Your task to perform on an android device: Open calendar and show me the fourth week of next month Image 0: 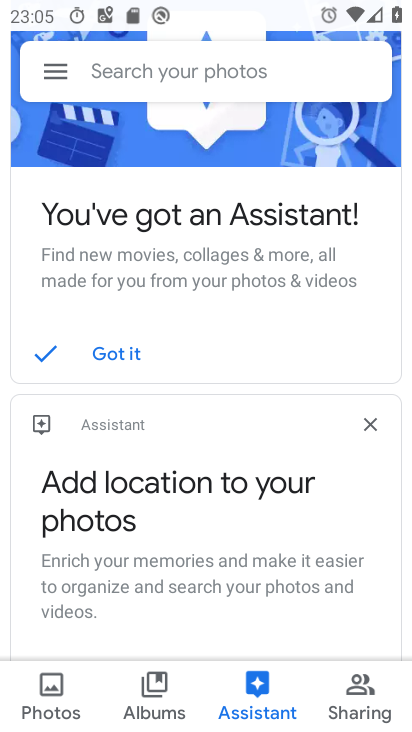
Step 0: press home button
Your task to perform on an android device: Open calendar and show me the fourth week of next month Image 1: 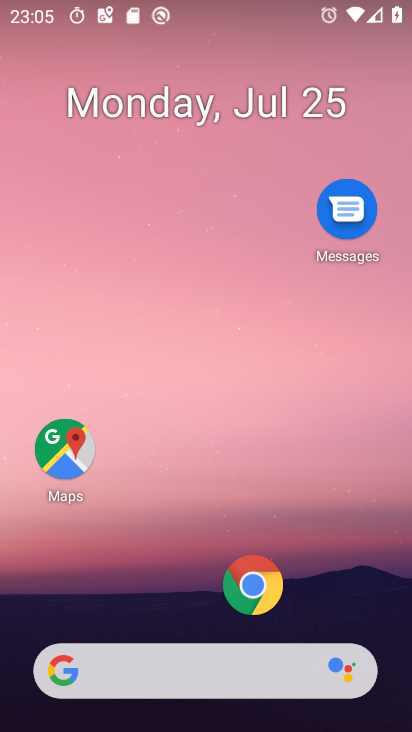
Step 1: drag from (134, 679) to (267, 85)
Your task to perform on an android device: Open calendar and show me the fourth week of next month Image 2: 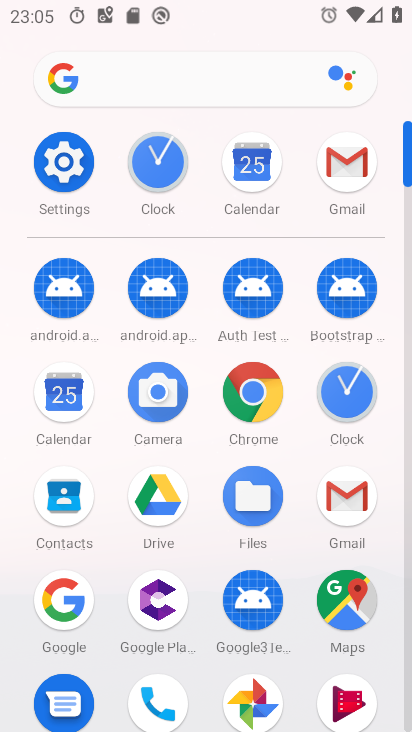
Step 2: click (59, 404)
Your task to perform on an android device: Open calendar and show me the fourth week of next month Image 3: 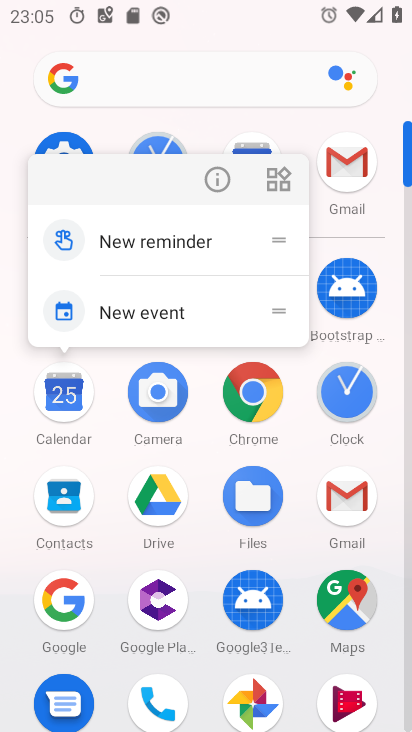
Step 3: click (59, 404)
Your task to perform on an android device: Open calendar and show me the fourth week of next month Image 4: 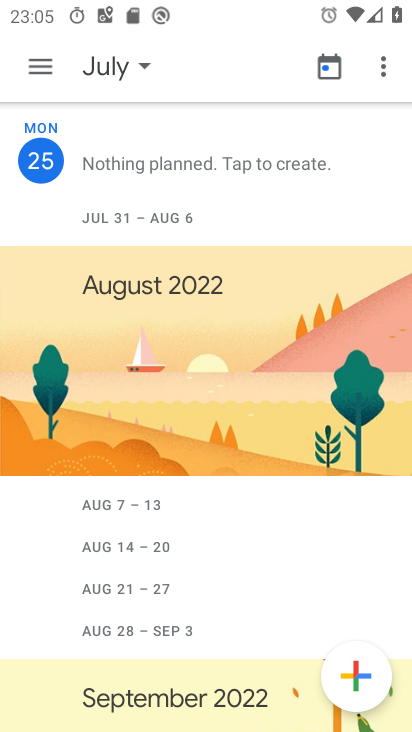
Step 4: click (97, 74)
Your task to perform on an android device: Open calendar and show me the fourth week of next month Image 5: 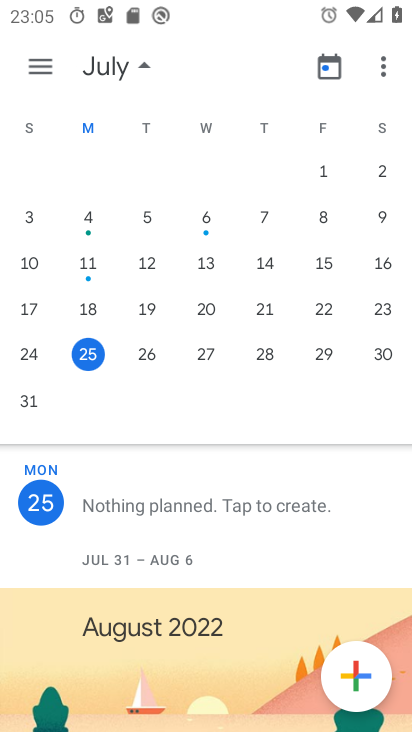
Step 5: drag from (368, 312) to (6, 329)
Your task to perform on an android device: Open calendar and show me the fourth week of next month Image 6: 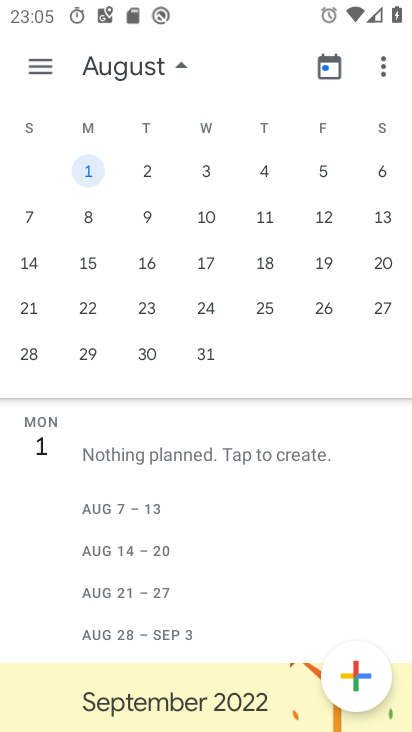
Step 6: drag from (355, 274) to (50, 535)
Your task to perform on an android device: Open calendar and show me the fourth week of next month Image 7: 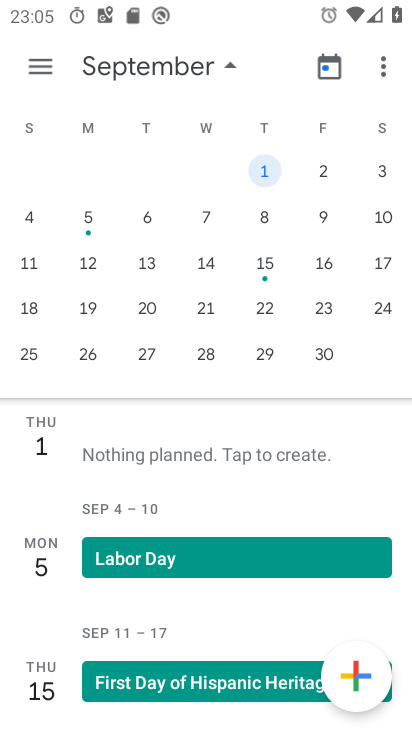
Step 7: drag from (55, 279) to (406, 317)
Your task to perform on an android device: Open calendar and show me the fourth week of next month Image 8: 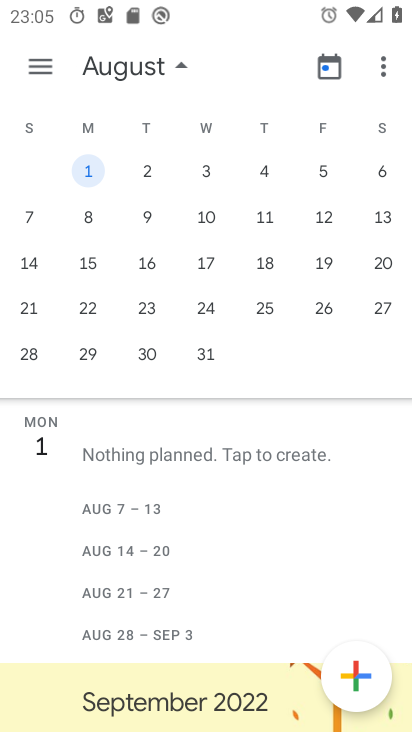
Step 8: click (28, 302)
Your task to perform on an android device: Open calendar and show me the fourth week of next month Image 9: 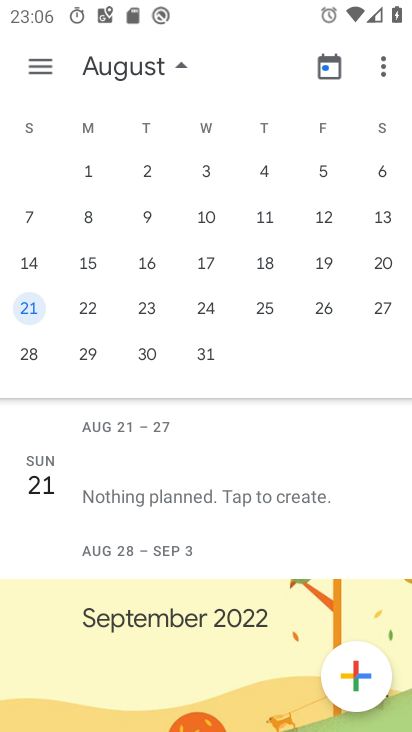
Step 9: click (40, 62)
Your task to perform on an android device: Open calendar and show me the fourth week of next month Image 10: 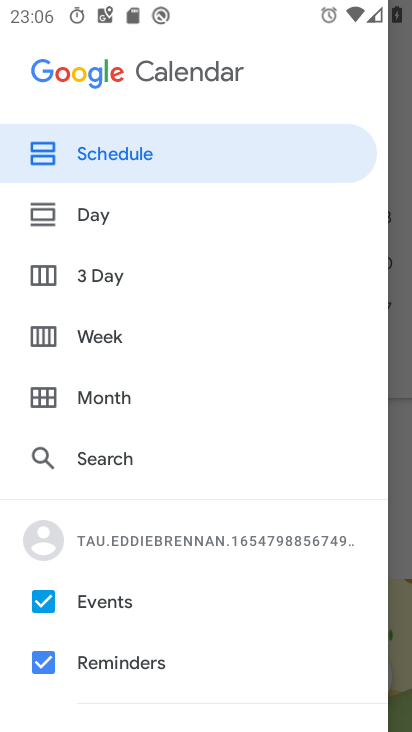
Step 10: click (101, 338)
Your task to perform on an android device: Open calendar and show me the fourth week of next month Image 11: 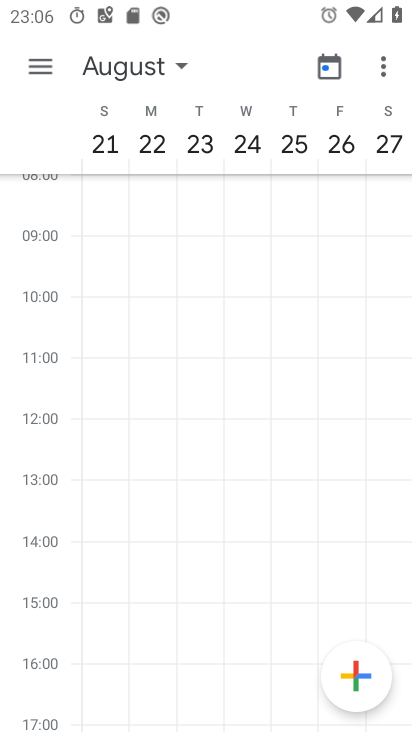
Step 11: task complete